Your task to perform on an android device: toggle wifi Image 0: 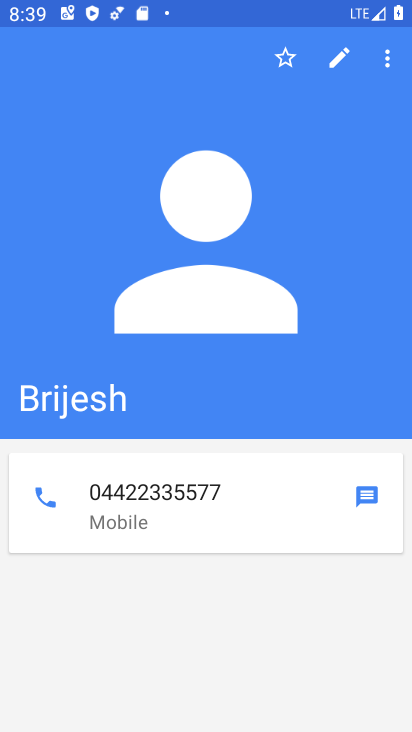
Step 0: press home button
Your task to perform on an android device: toggle wifi Image 1: 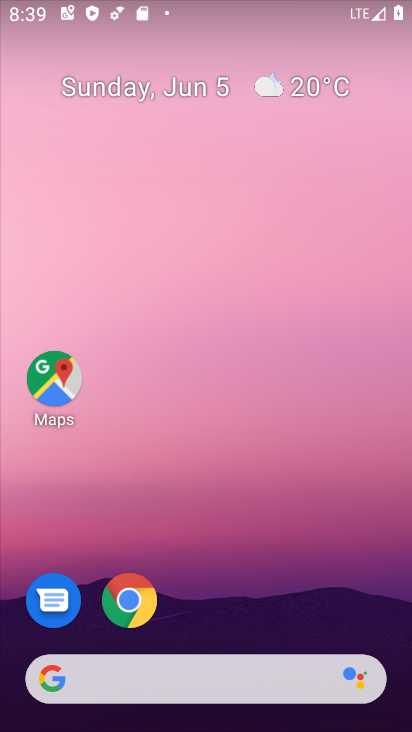
Step 1: drag from (281, 565) to (266, 47)
Your task to perform on an android device: toggle wifi Image 2: 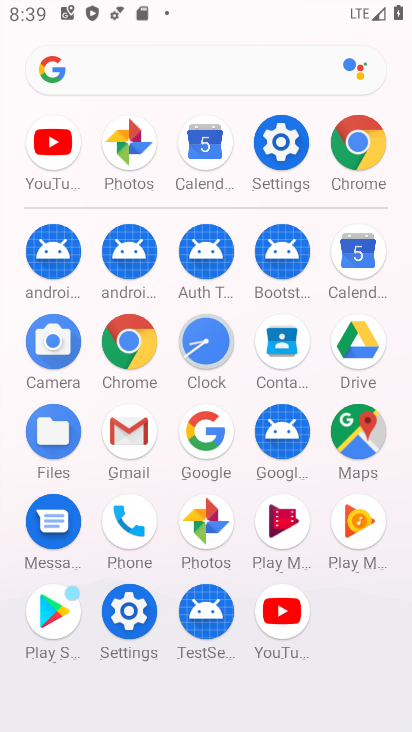
Step 2: click (273, 142)
Your task to perform on an android device: toggle wifi Image 3: 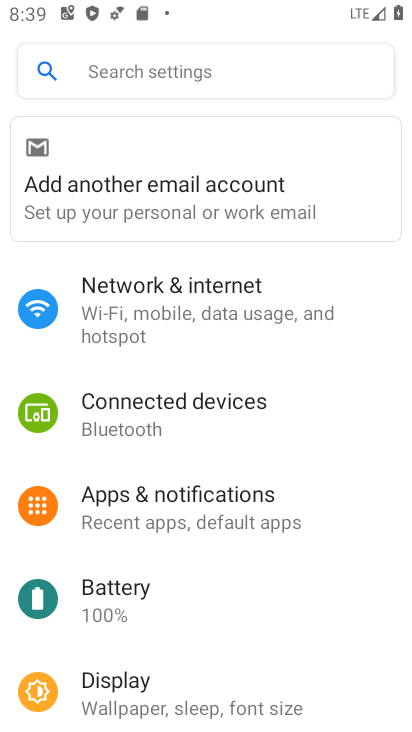
Step 3: click (225, 300)
Your task to perform on an android device: toggle wifi Image 4: 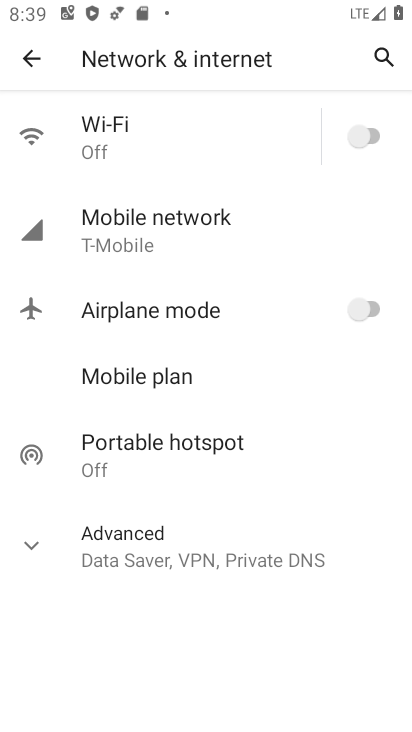
Step 4: click (375, 129)
Your task to perform on an android device: toggle wifi Image 5: 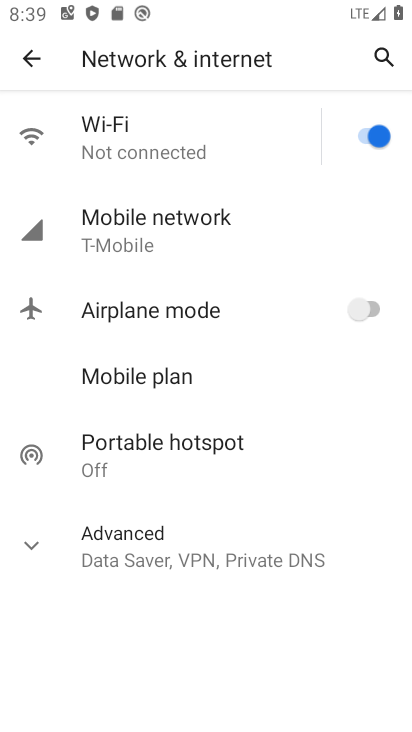
Step 5: task complete